Your task to perform on an android device: find snoozed emails in the gmail app Image 0: 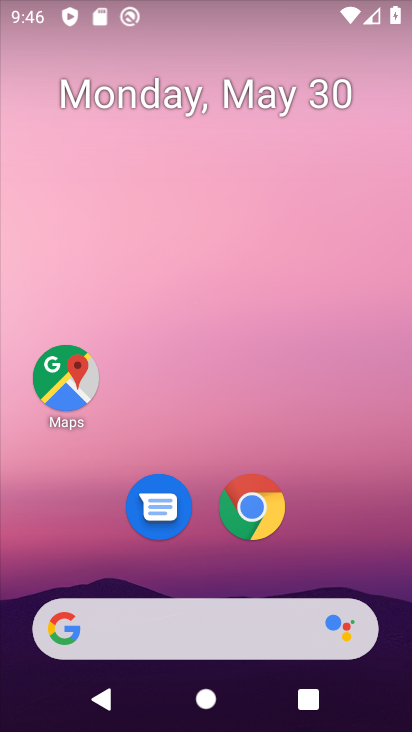
Step 0: drag from (145, 713) to (93, 98)
Your task to perform on an android device: find snoozed emails in the gmail app Image 1: 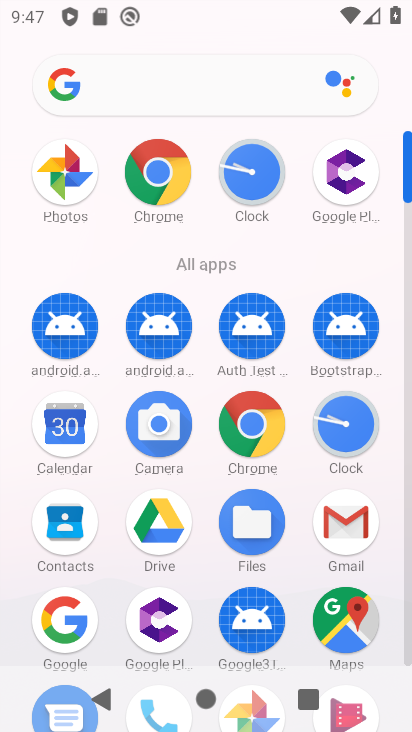
Step 1: click (327, 542)
Your task to perform on an android device: find snoozed emails in the gmail app Image 2: 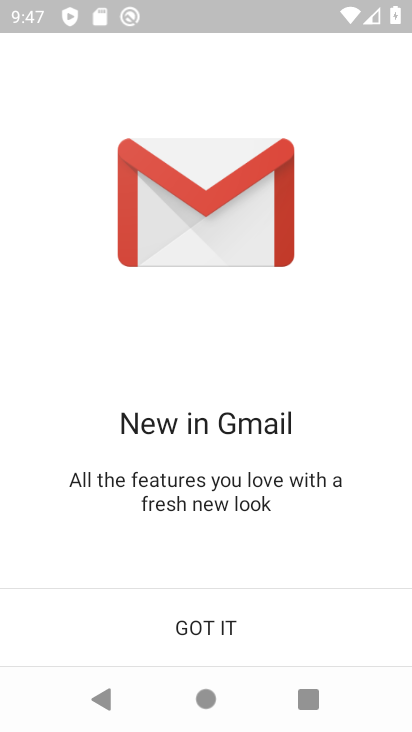
Step 2: click (248, 628)
Your task to perform on an android device: find snoozed emails in the gmail app Image 3: 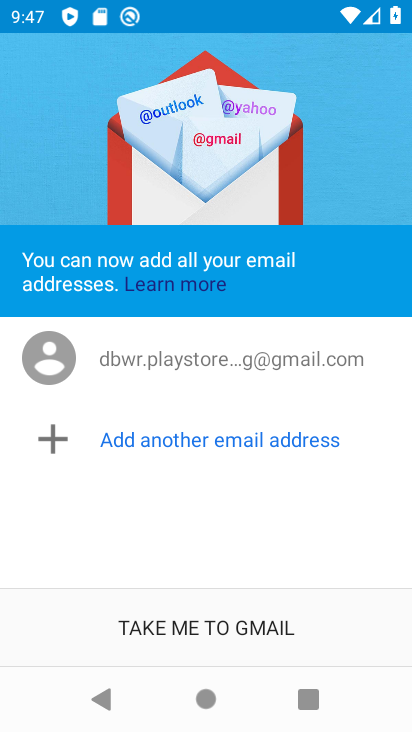
Step 3: click (185, 620)
Your task to perform on an android device: find snoozed emails in the gmail app Image 4: 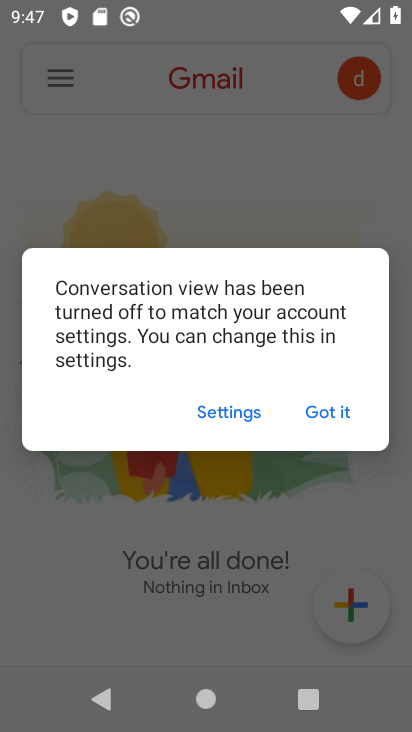
Step 4: click (349, 421)
Your task to perform on an android device: find snoozed emails in the gmail app Image 5: 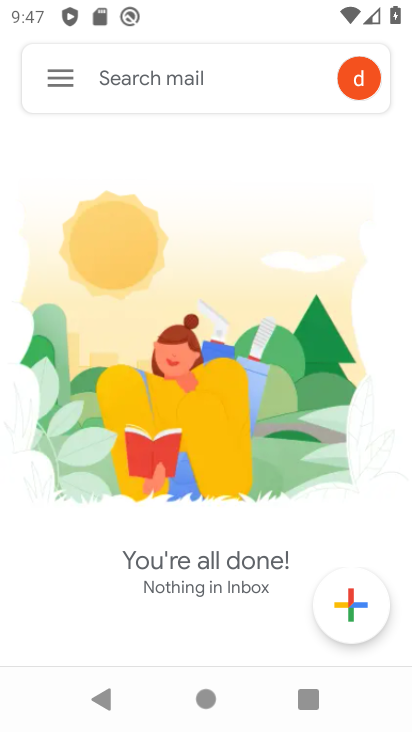
Step 5: click (61, 86)
Your task to perform on an android device: find snoozed emails in the gmail app Image 6: 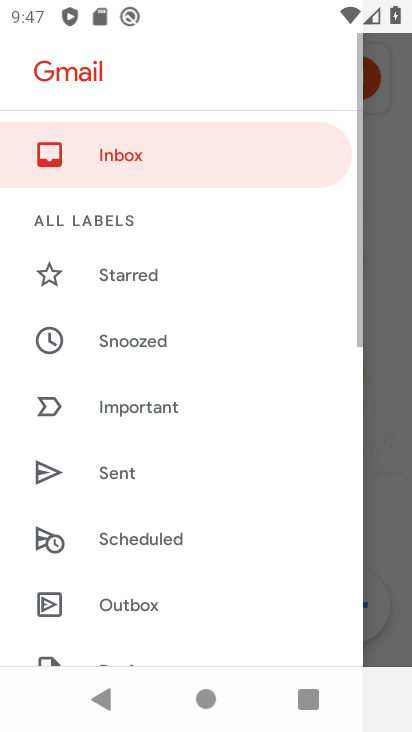
Step 6: drag from (197, 584) to (199, 235)
Your task to perform on an android device: find snoozed emails in the gmail app Image 7: 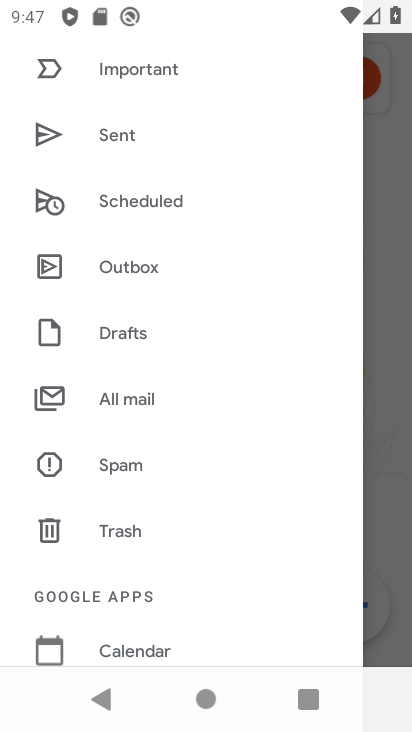
Step 7: drag from (181, 119) to (190, 417)
Your task to perform on an android device: find snoozed emails in the gmail app Image 8: 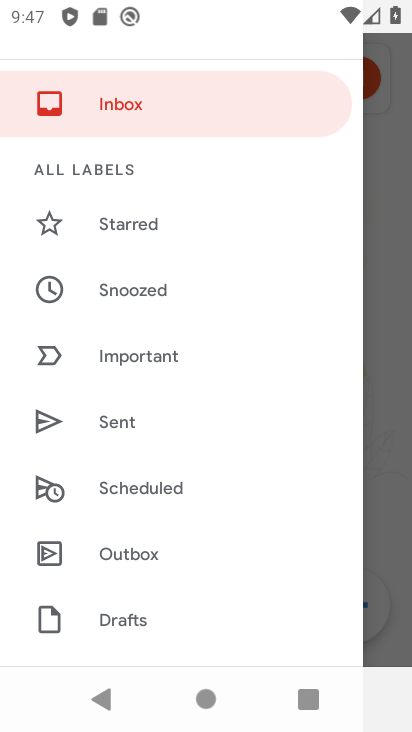
Step 8: click (124, 284)
Your task to perform on an android device: find snoozed emails in the gmail app Image 9: 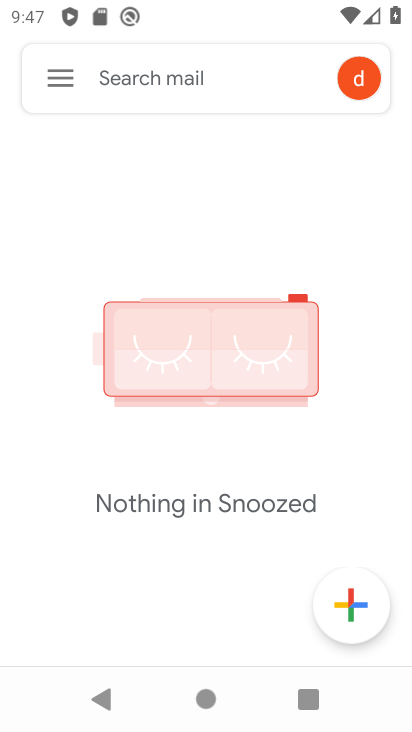
Step 9: task complete